Your task to perform on an android device: Open calendar and show me the fourth week of next month Image 0: 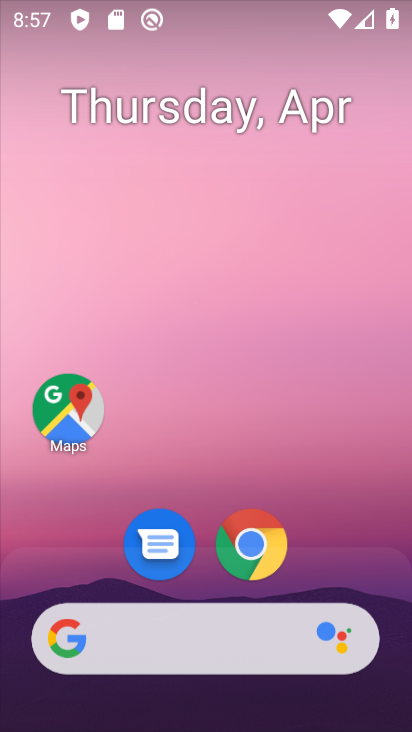
Step 0: drag from (188, 428) to (201, 237)
Your task to perform on an android device: Open calendar and show me the fourth week of next month Image 1: 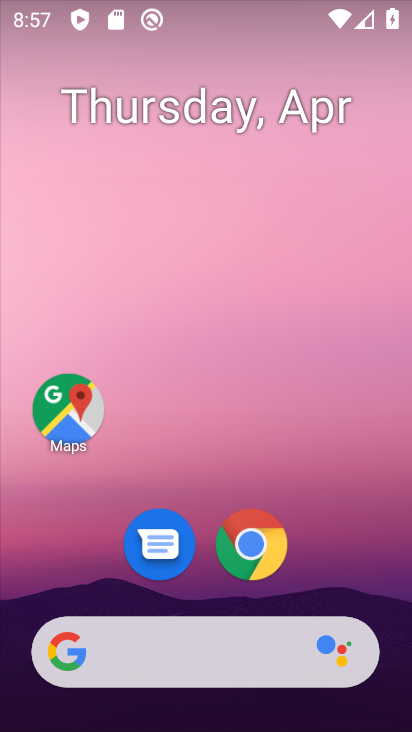
Step 1: drag from (226, 454) to (263, 158)
Your task to perform on an android device: Open calendar and show me the fourth week of next month Image 2: 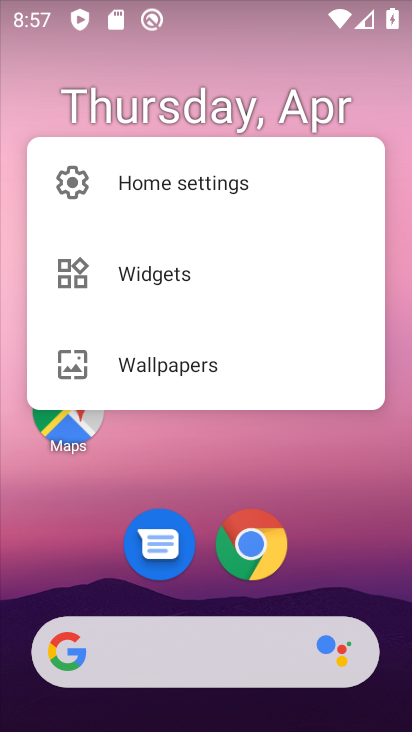
Step 2: click (154, 464)
Your task to perform on an android device: Open calendar and show me the fourth week of next month Image 3: 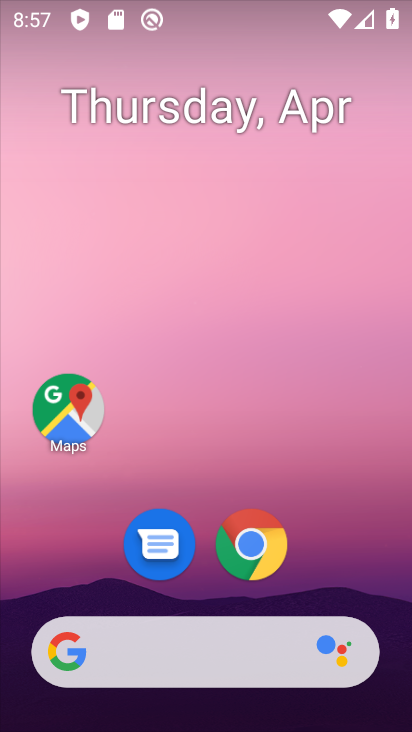
Step 3: drag from (225, 510) to (310, 85)
Your task to perform on an android device: Open calendar and show me the fourth week of next month Image 4: 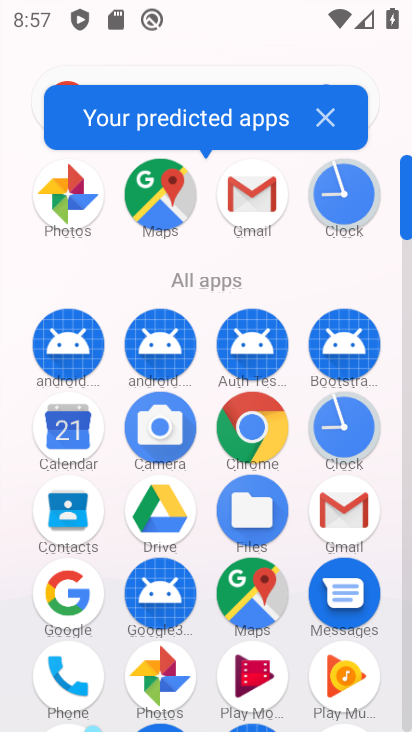
Step 4: click (63, 434)
Your task to perform on an android device: Open calendar and show me the fourth week of next month Image 5: 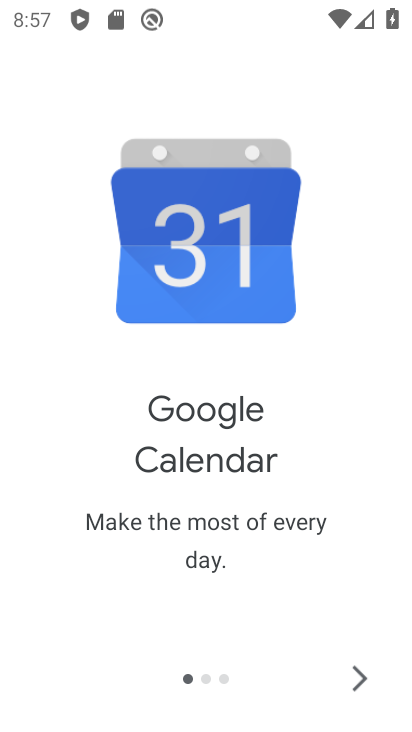
Step 5: click (359, 675)
Your task to perform on an android device: Open calendar and show me the fourth week of next month Image 6: 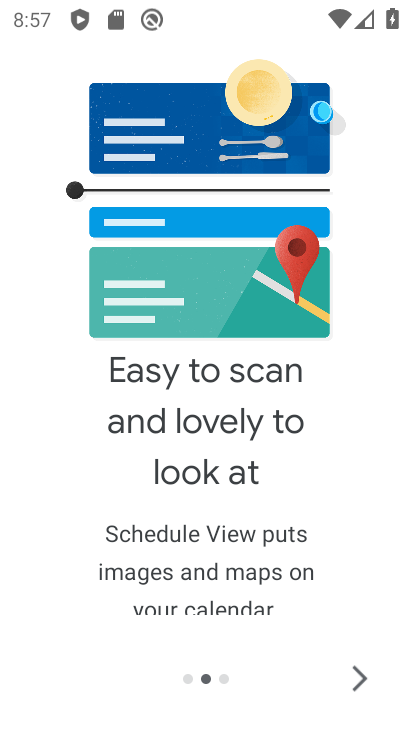
Step 6: click (359, 675)
Your task to perform on an android device: Open calendar and show me the fourth week of next month Image 7: 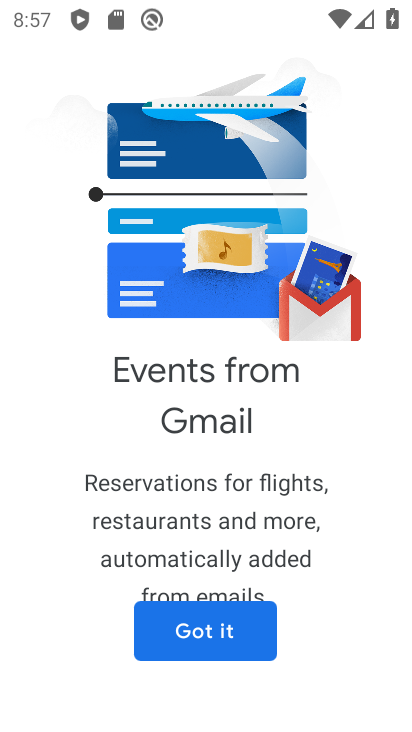
Step 7: click (239, 637)
Your task to perform on an android device: Open calendar and show me the fourth week of next month Image 8: 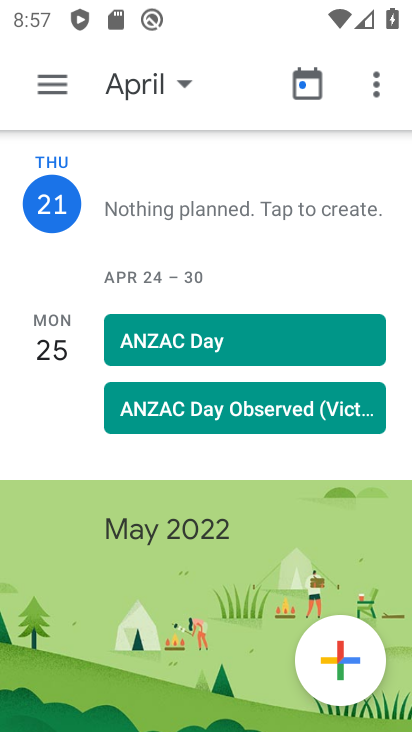
Step 8: click (141, 83)
Your task to perform on an android device: Open calendar and show me the fourth week of next month Image 9: 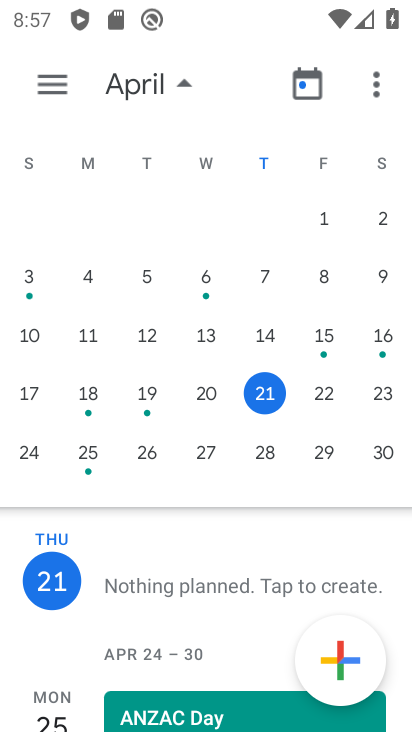
Step 9: drag from (78, 425) to (14, 451)
Your task to perform on an android device: Open calendar and show me the fourth week of next month Image 10: 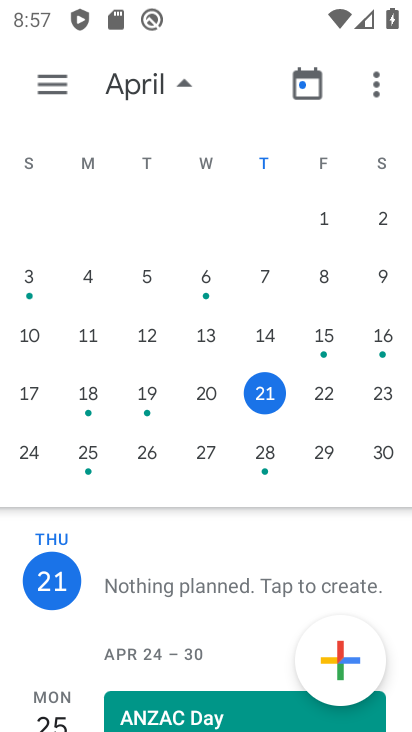
Step 10: drag from (387, 423) to (21, 539)
Your task to perform on an android device: Open calendar and show me the fourth week of next month Image 11: 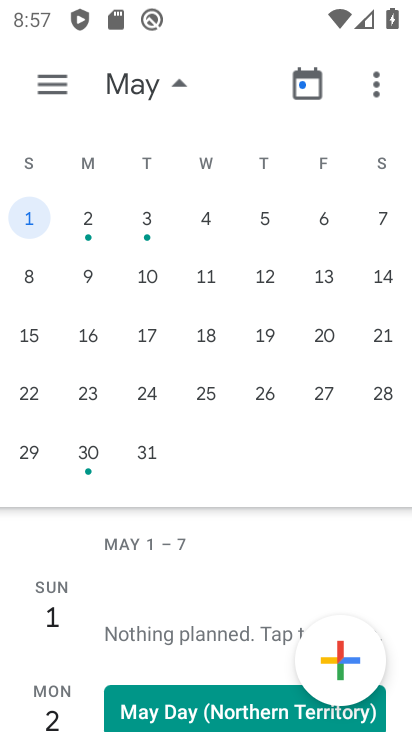
Step 11: click (34, 392)
Your task to perform on an android device: Open calendar and show me the fourth week of next month Image 12: 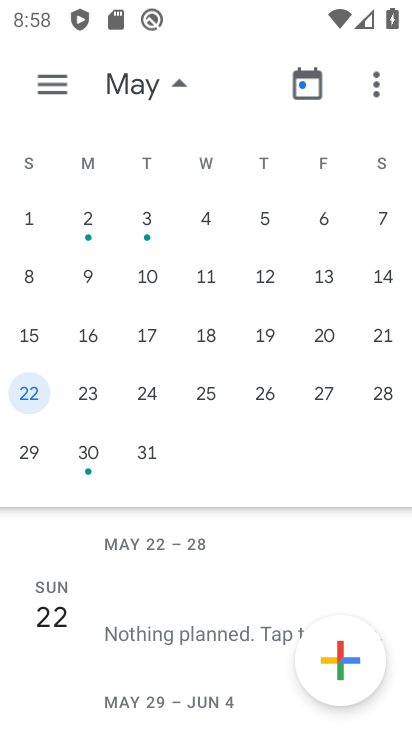
Step 12: task complete